Your task to perform on an android device: find photos in the google photos app Image 0: 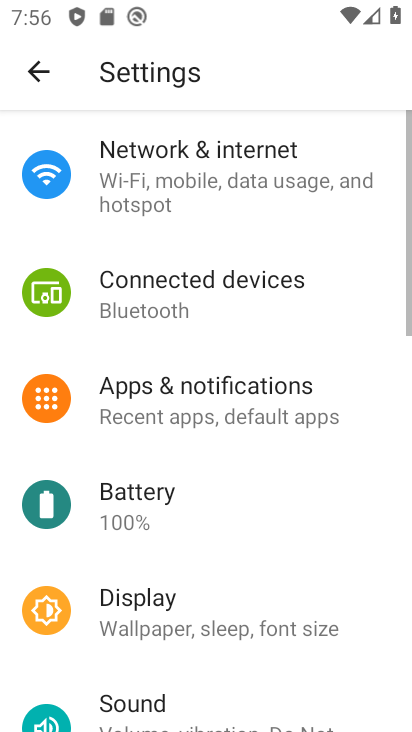
Step 0: press home button
Your task to perform on an android device: find photos in the google photos app Image 1: 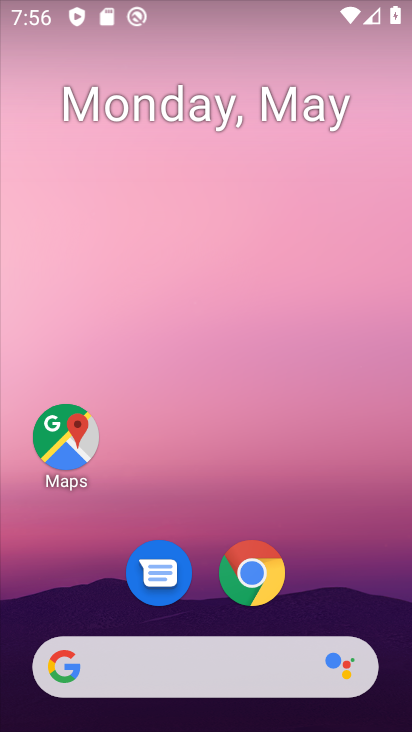
Step 1: drag from (64, 616) to (196, 147)
Your task to perform on an android device: find photos in the google photos app Image 2: 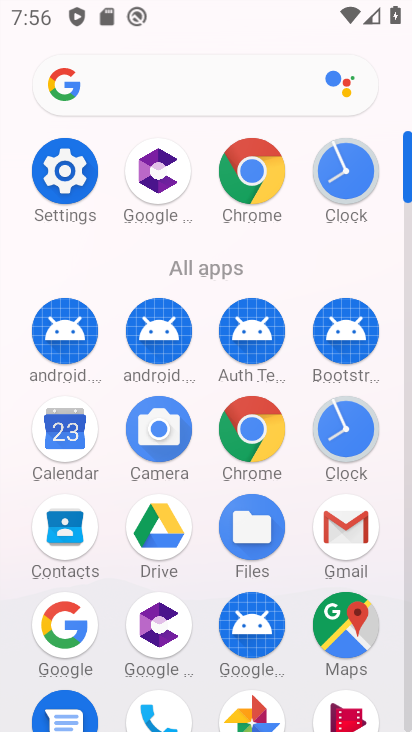
Step 2: drag from (200, 625) to (272, 262)
Your task to perform on an android device: find photos in the google photos app Image 3: 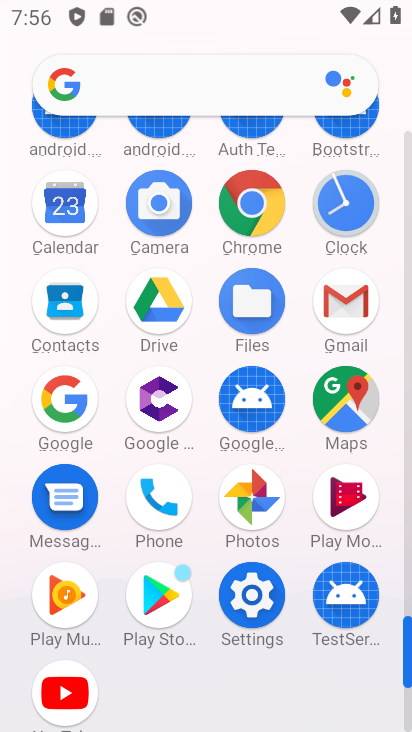
Step 3: click (265, 507)
Your task to perform on an android device: find photos in the google photos app Image 4: 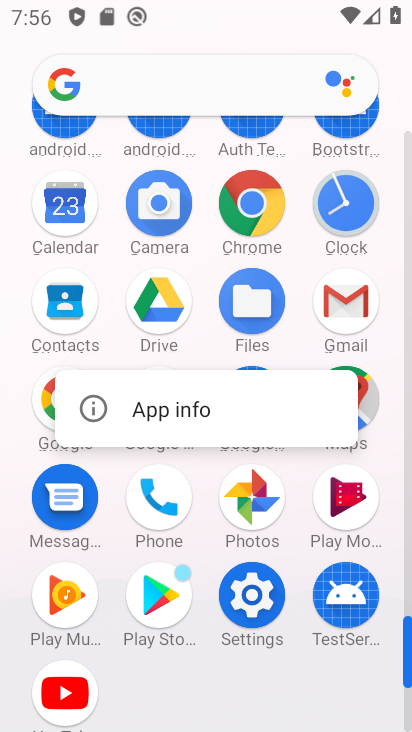
Step 4: click (262, 501)
Your task to perform on an android device: find photos in the google photos app Image 5: 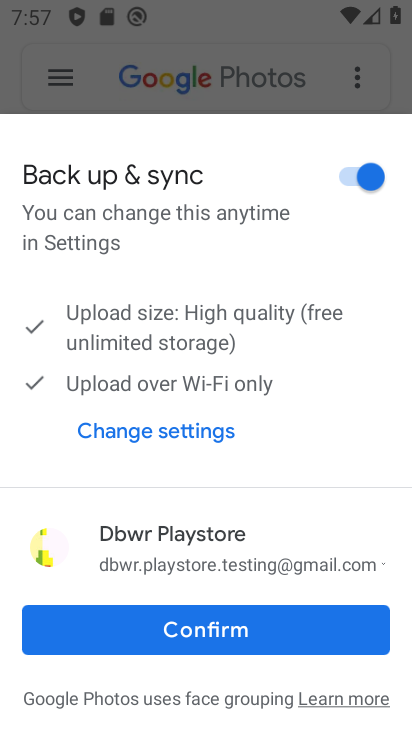
Step 5: click (217, 642)
Your task to perform on an android device: find photos in the google photos app Image 6: 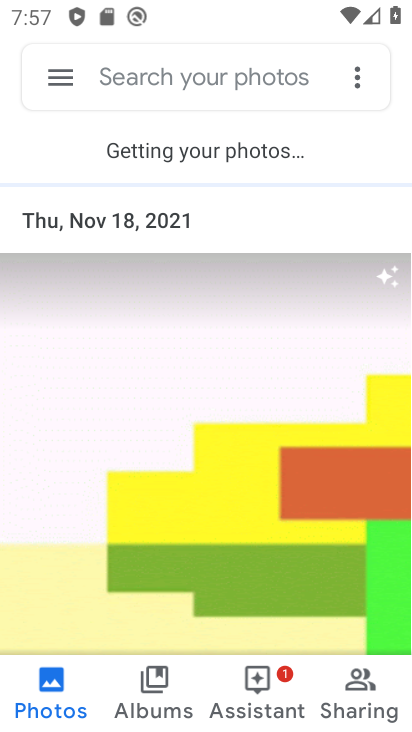
Step 6: drag from (171, 695) to (57, 691)
Your task to perform on an android device: find photos in the google photos app Image 7: 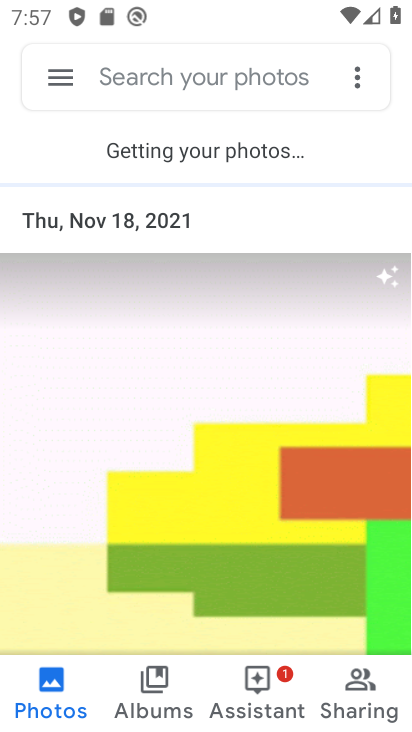
Step 7: click (57, 691)
Your task to perform on an android device: find photos in the google photos app Image 8: 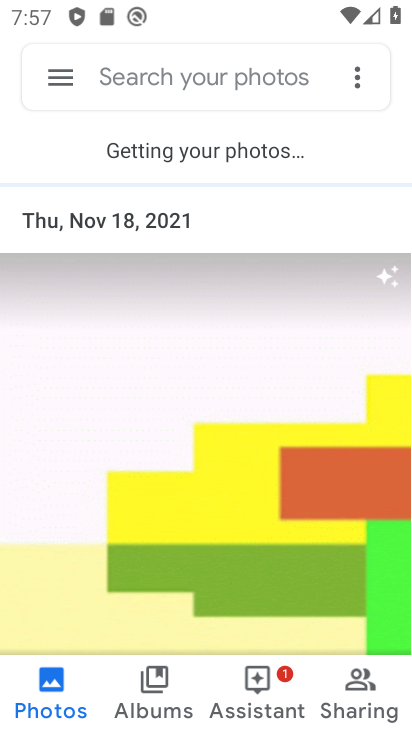
Step 8: task complete